Your task to perform on an android device: Open battery settings Image 0: 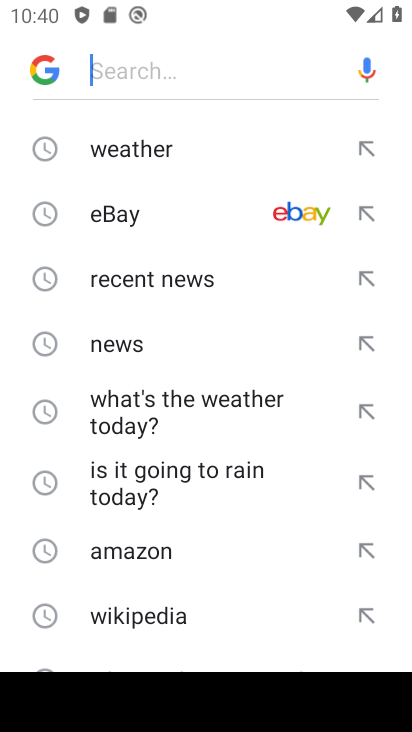
Step 0: press back button
Your task to perform on an android device: Open battery settings Image 1: 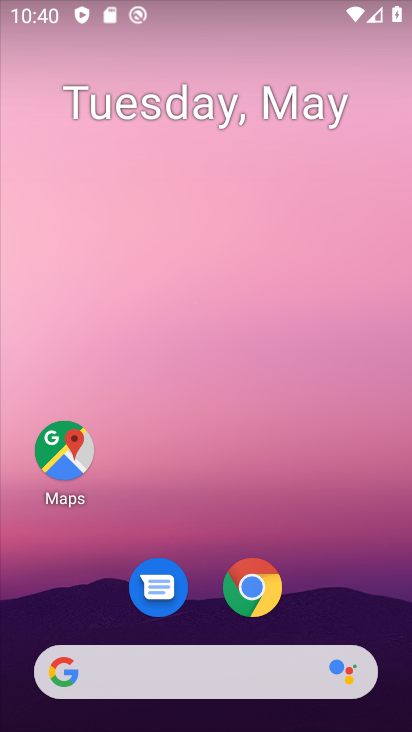
Step 1: drag from (326, 581) to (243, 37)
Your task to perform on an android device: Open battery settings Image 2: 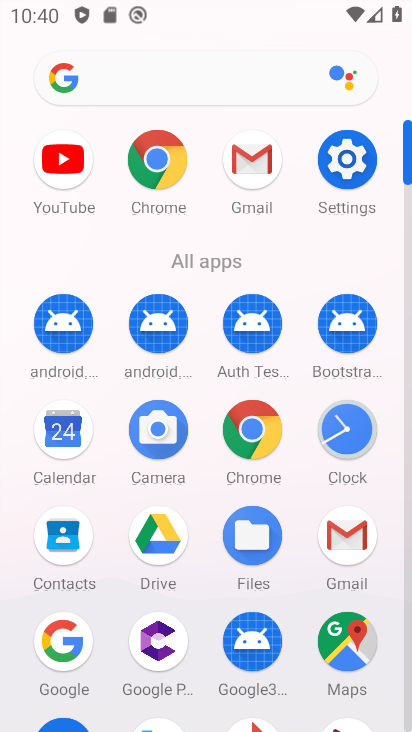
Step 2: click (340, 157)
Your task to perform on an android device: Open battery settings Image 3: 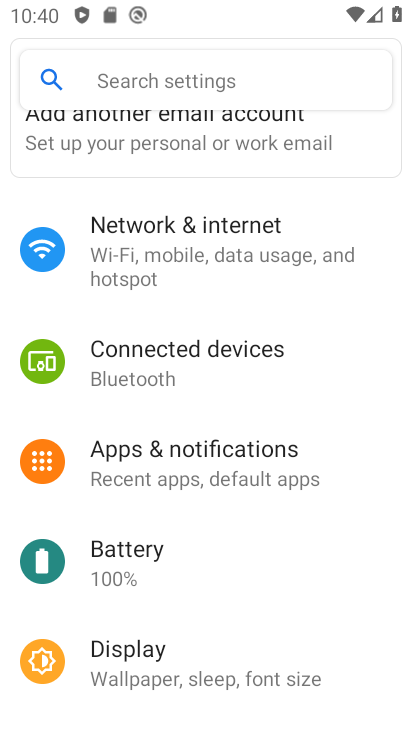
Step 3: drag from (275, 425) to (294, 250)
Your task to perform on an android device: Open battery settings Image 4: 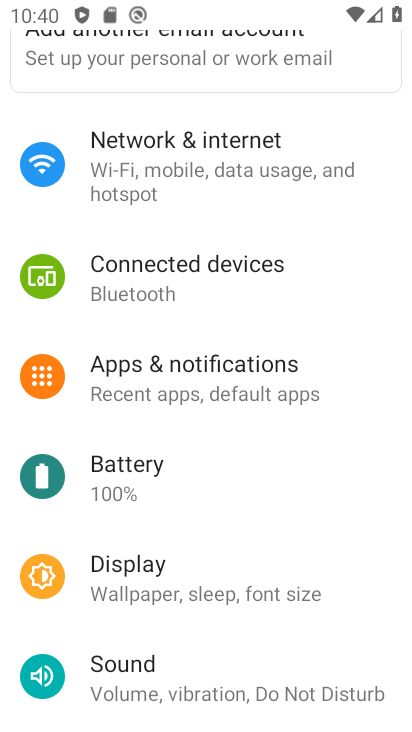
Step 4: click (156, 480)
Your task to perform on an android device: Open battery settings Image 5: 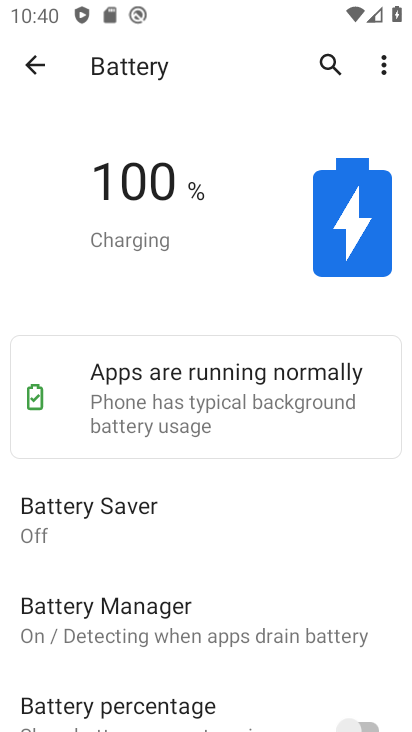
Step 5: task complete